Your task to perform on an android device: toggle pop-ups in chrome Image 0: 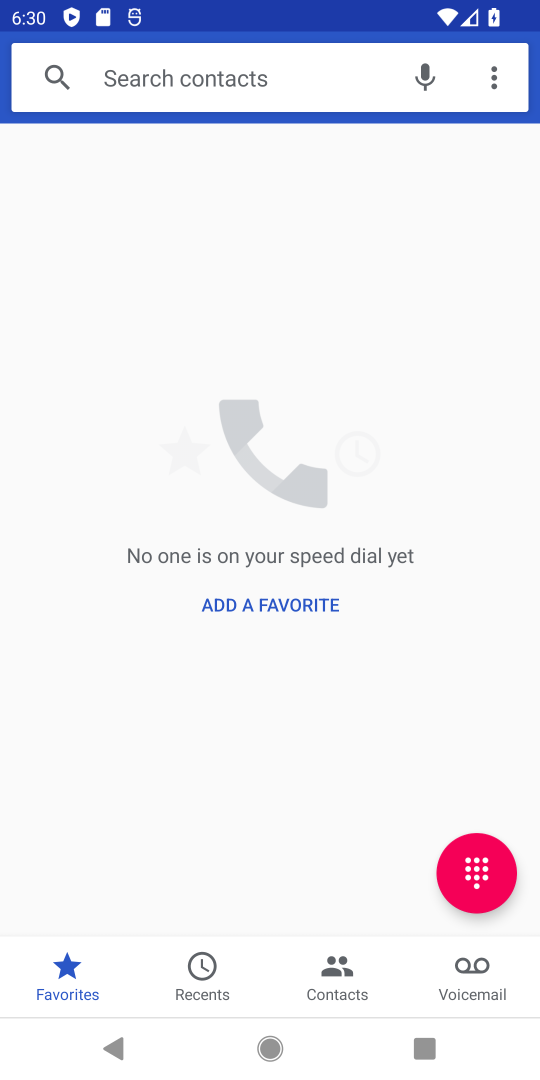
Step 0: press home button
Your task to perform on an android device: toggle pop-ups in chrome Image 1: 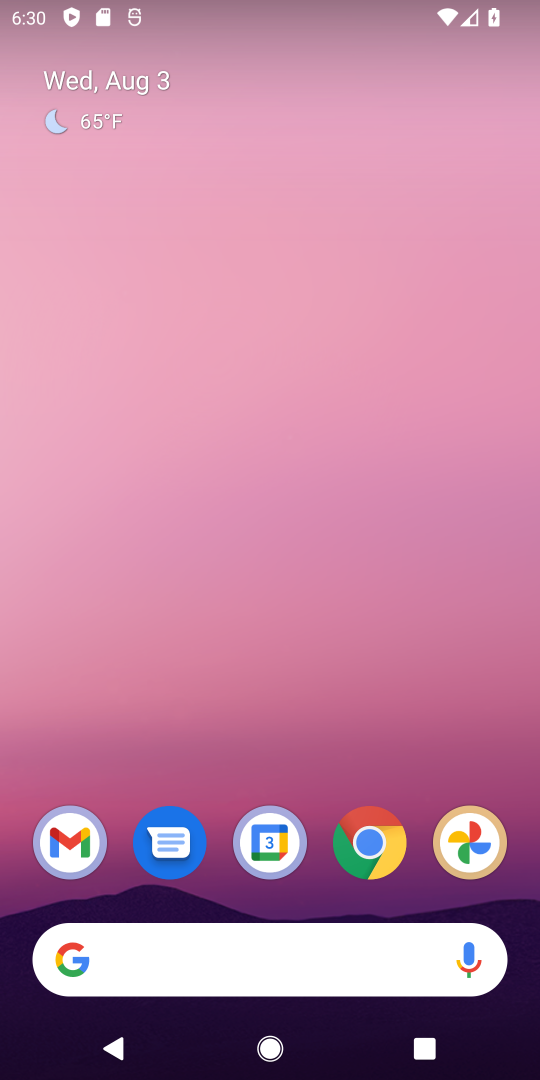
Step 1: click (382, 856)
Your task to perform on an android device: toggle pop-ups in chrome Image 2: 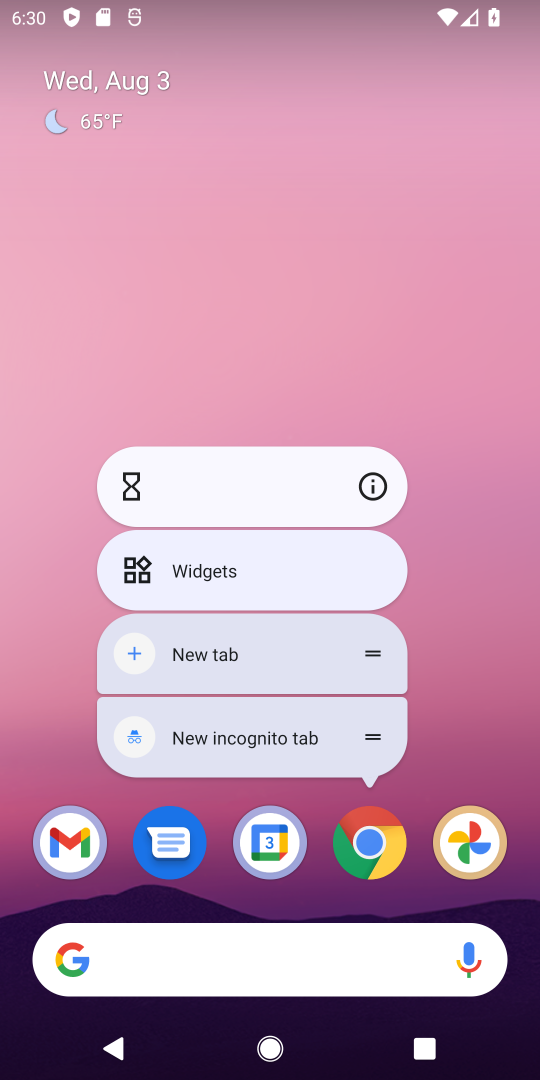
Step 2: click (382, 856)
Your task to perform on an android device: toggle pop-ups in chrome Image 3: 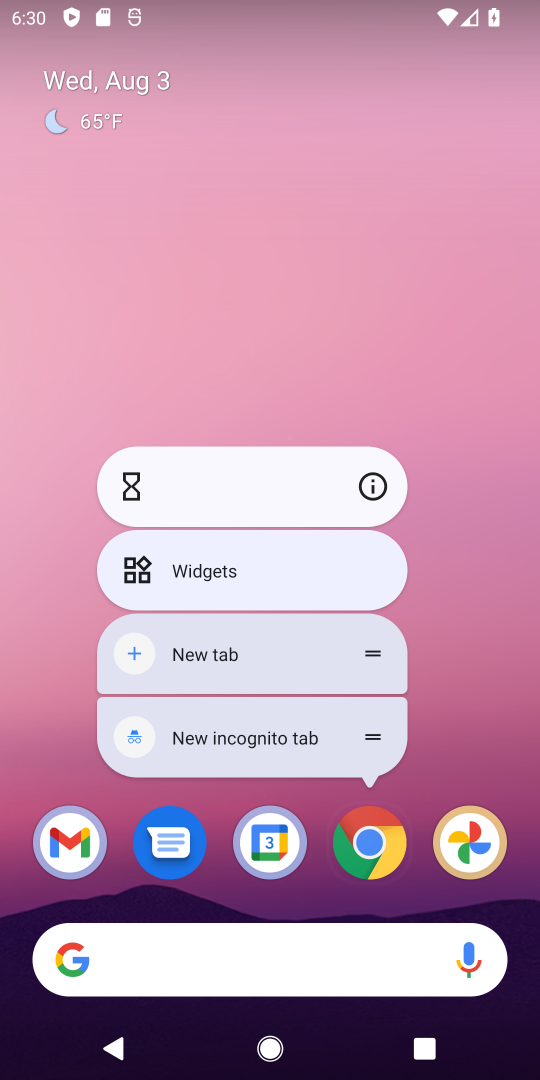
Step 3: click (382, 856)
Your task to perform on an android device: toggle pop-ups in chrome Image 4: 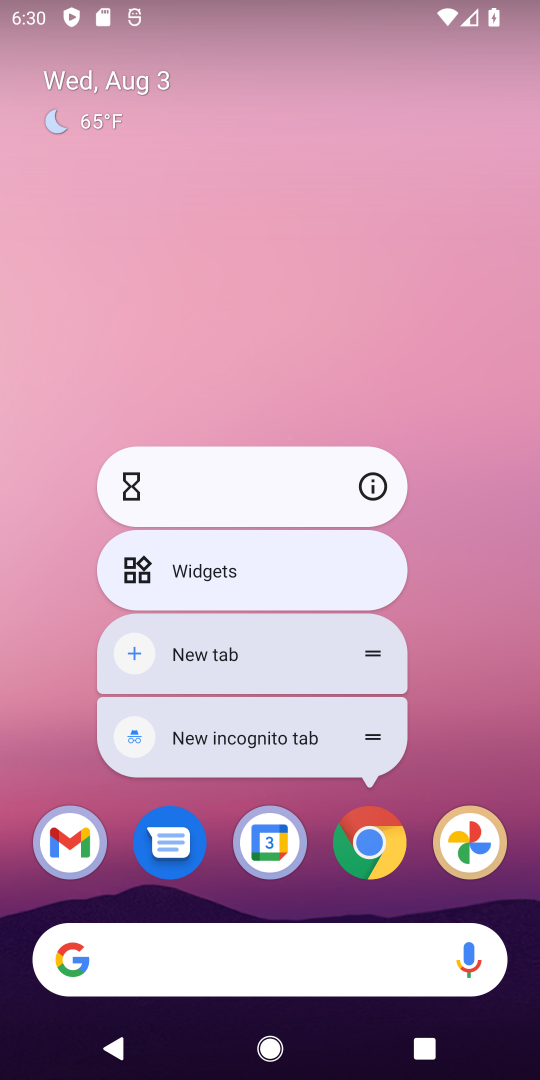
Step 4: click (382, 856)
Your task to perform on an android device: toggle pop-ups in chrome Image 5: 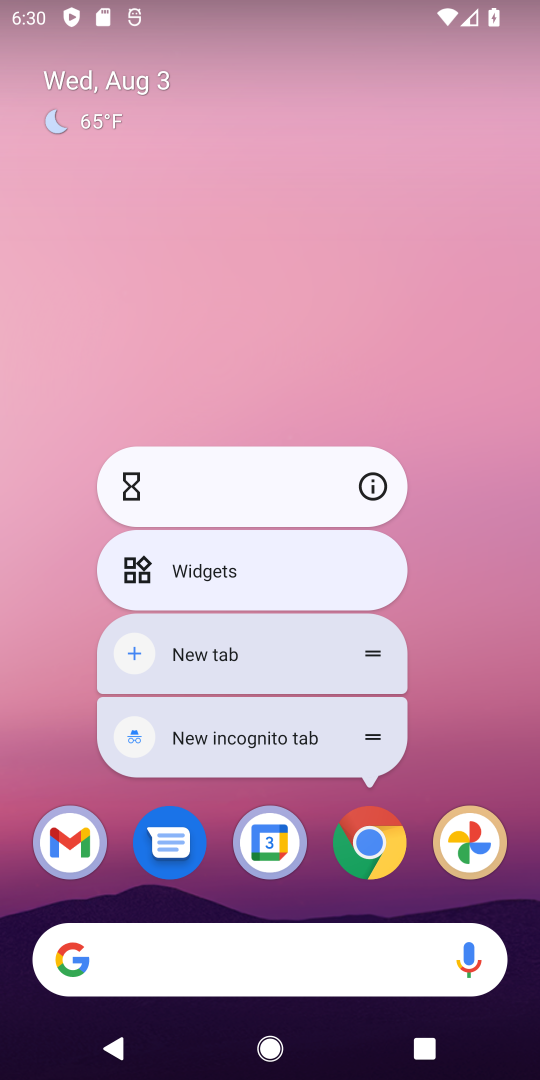
Step 5: click (382, 856)
Your task to perform on an android device: toggle pop-ups in chrome Image 6: 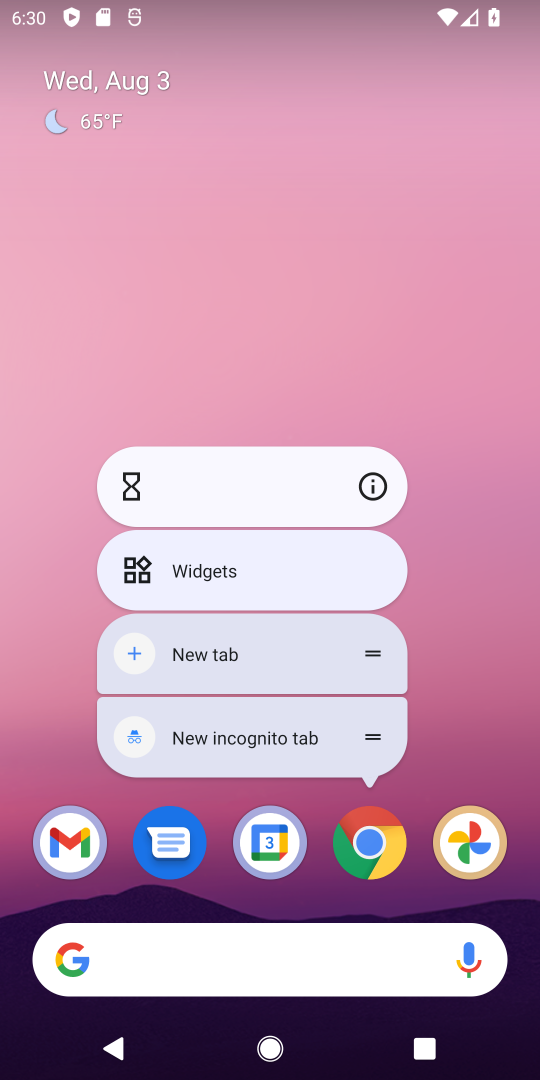
Step 6: click (357, 861)
Your task to perform on an android device: toggle pop-ups in chrome Image 7: 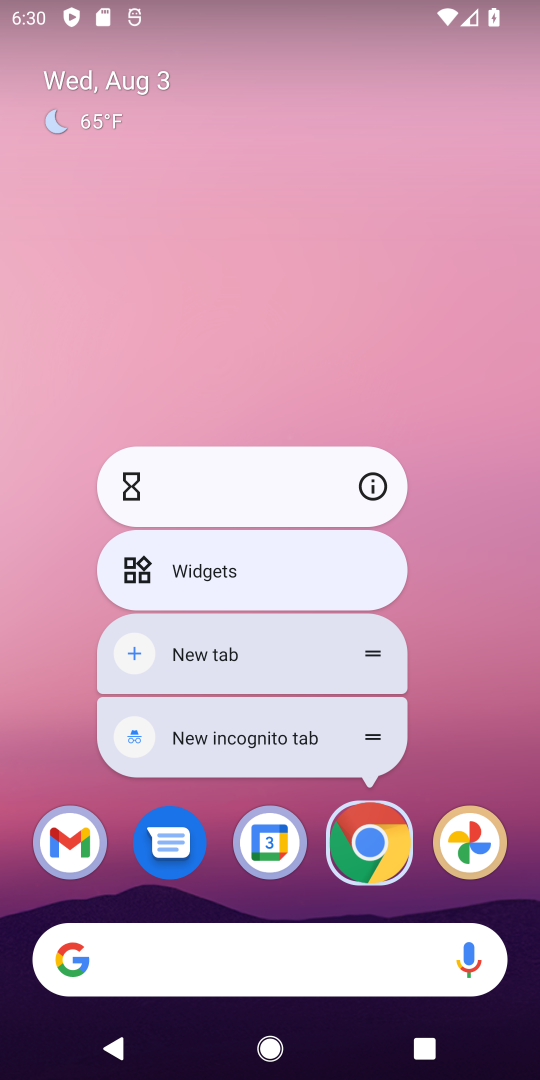
Step 7: click (357, 861)
Your task to perform on an android device: toggle pop-ups in chrome Image 8: 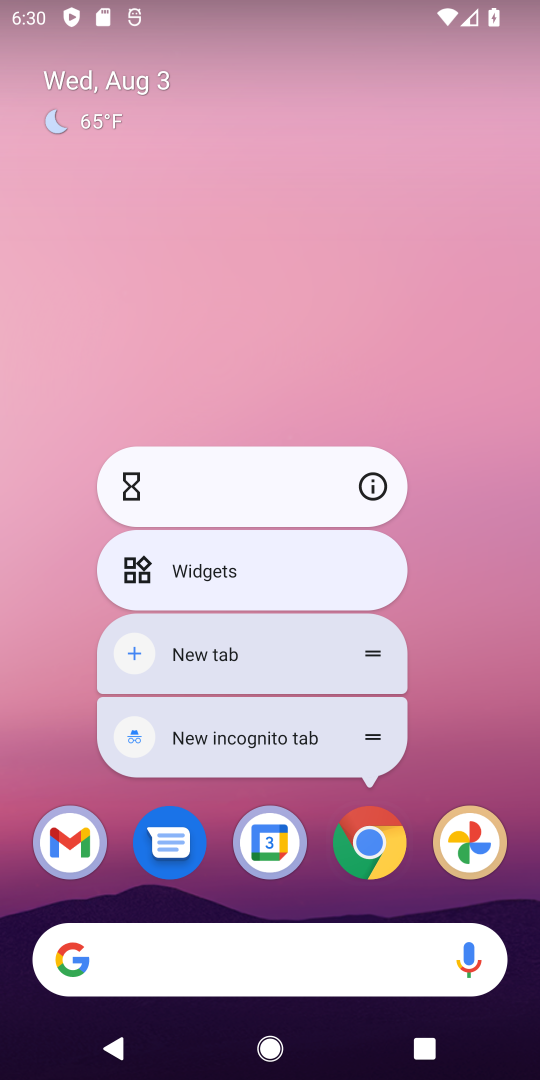
Step 8: click (357, 861)
Your task to perform on an android device: toggle pop-ups in chrome Image 9: 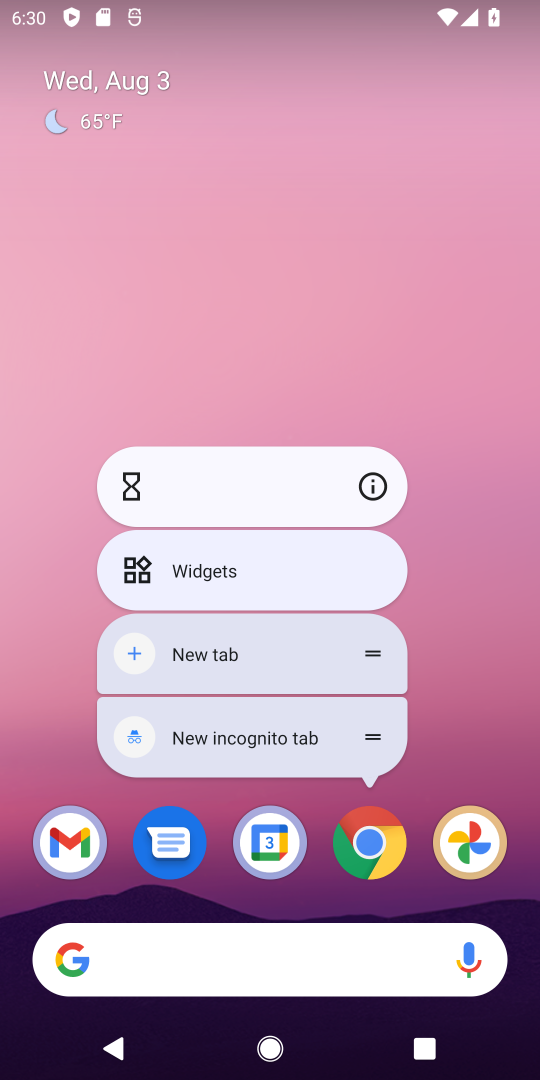
Step 9: click (378, 847)
Your task to perform on an android device: toggle pop-ups in chrome Image 10: 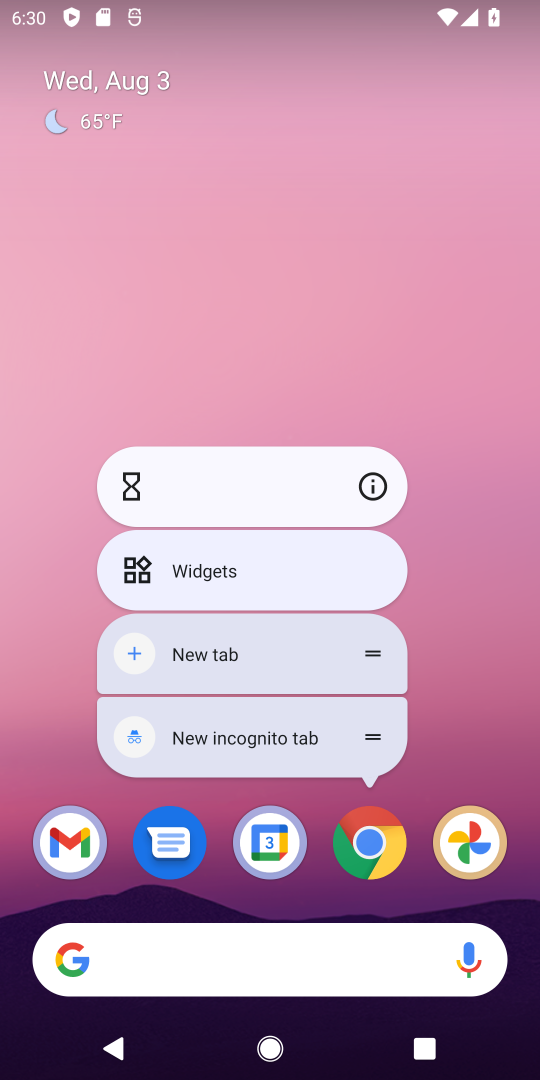
Step 10: click (354, 844)
Your task to perform on an android device: toggle pop-ups in chrome Image 11: 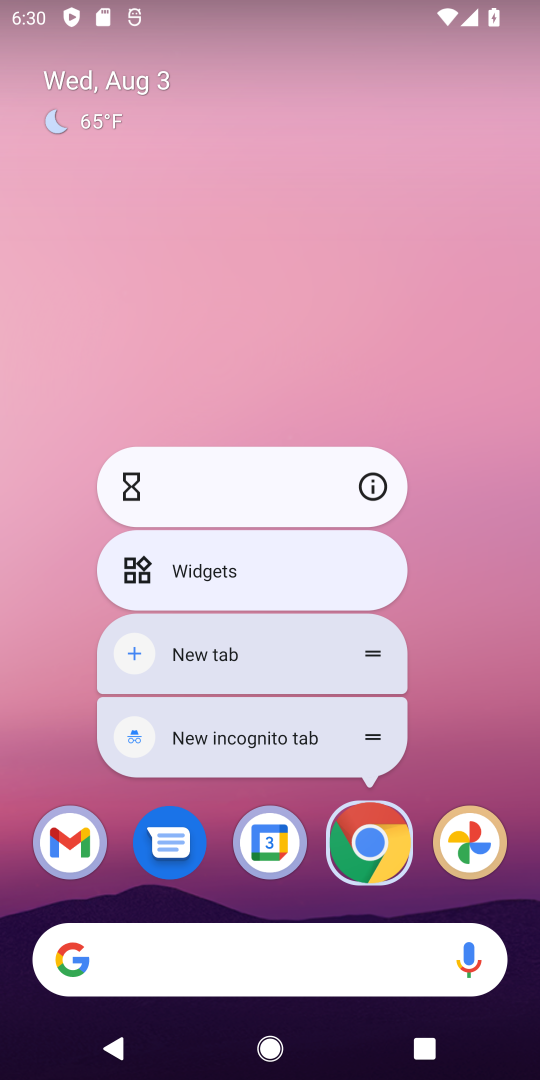
Step 11: click (354, 844)
Your task to perform on an android device: toggle pop-ups in chrome Image 12: 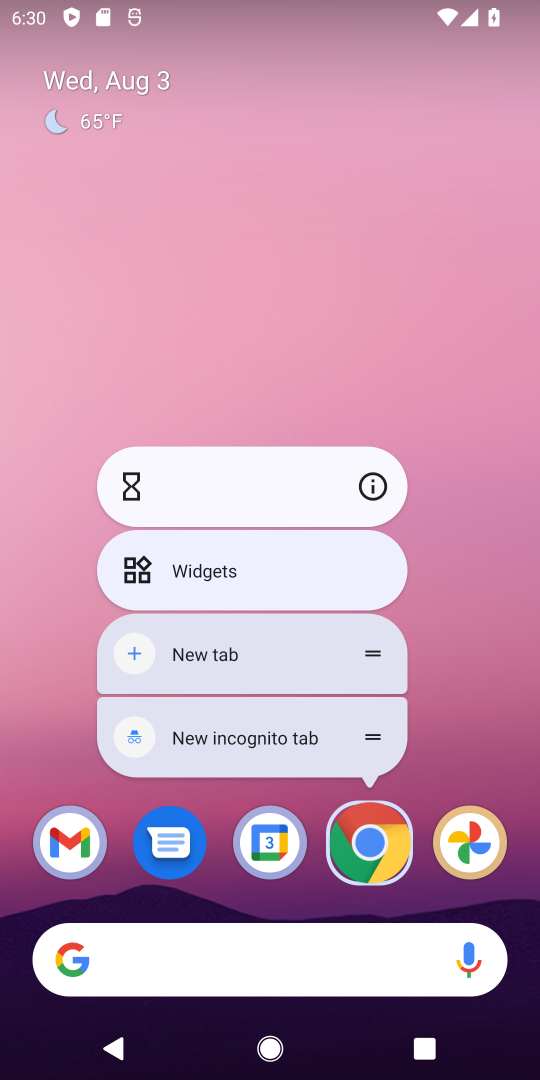
Step 12: click (354, 844)
Your task to perform on an android device: toggle pop-ups in chrome Image 13: 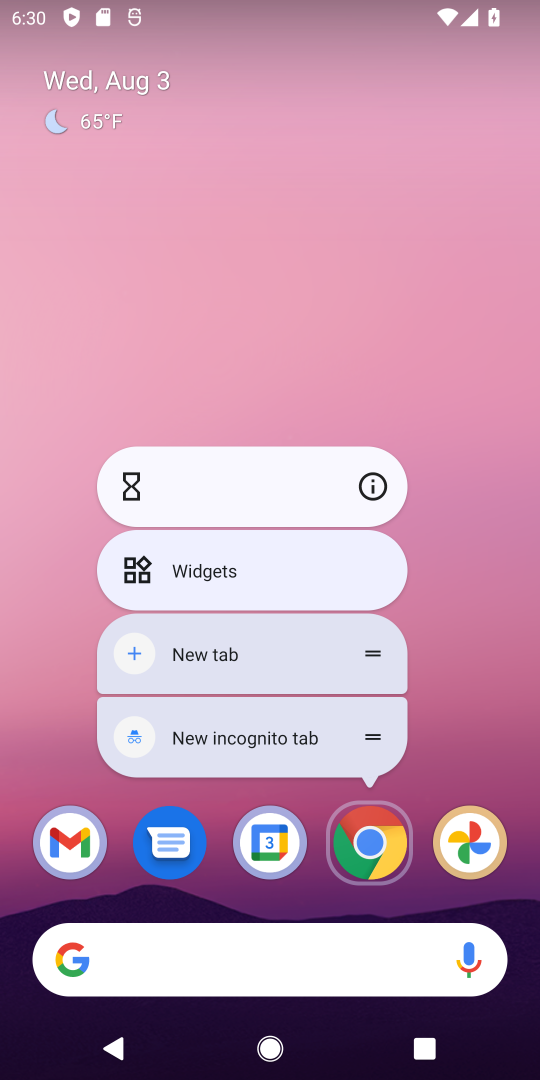
Step 13: click (354, 844)
Your task to perform on an android device: toggle pop-ups in chrome Image 14: 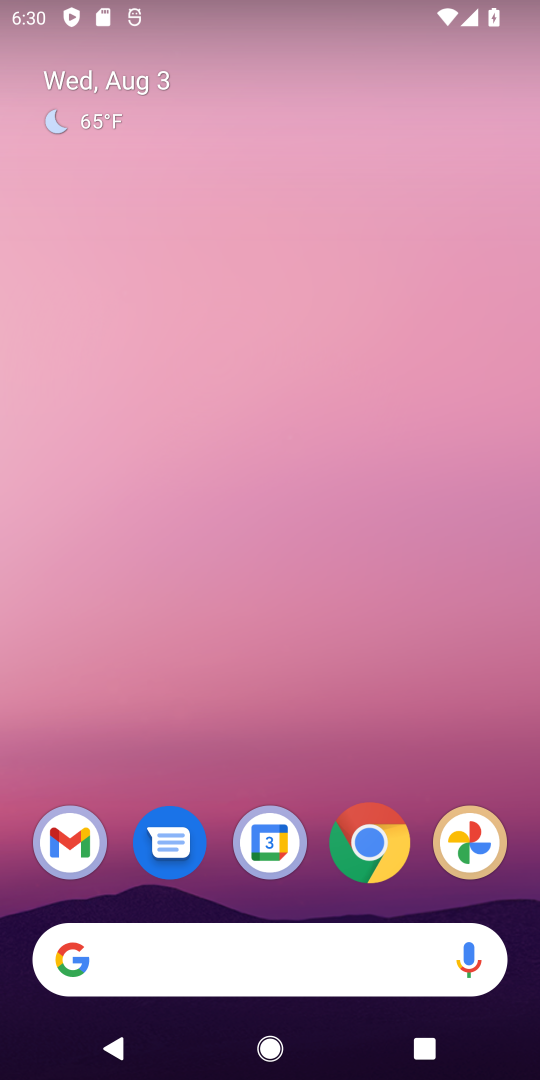
Step 14: click (354, 844)
Your task to perform on an android device: toggle pop-ups in chrome Image 15: 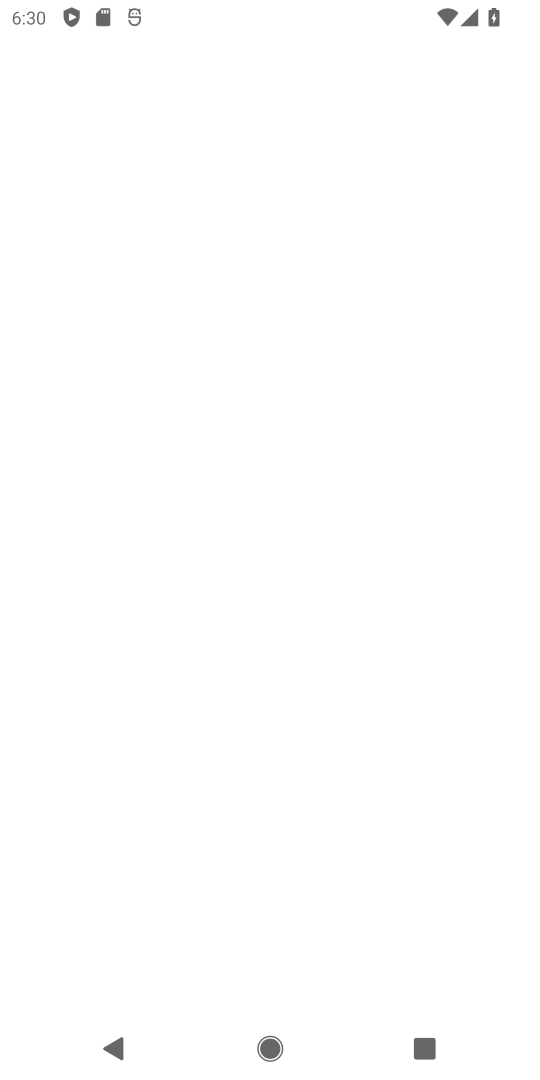
Step 15: click (354, 844)
Your task to perform on an android device: toggle pop-ups in chrome Image 16: 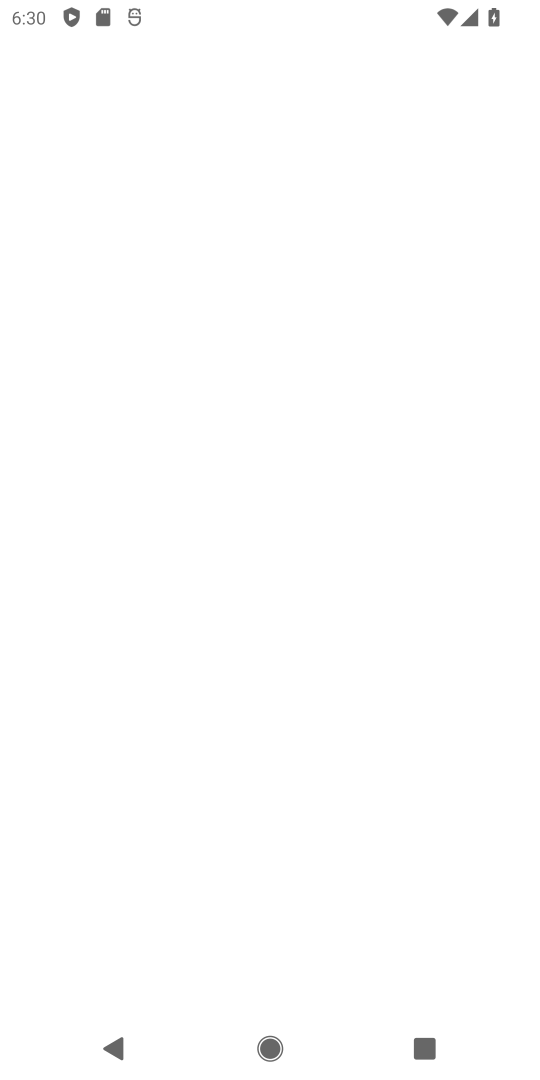
Step 16: click (354, 844)
Your task to perform on an android device: toggle pop-ups in chrome Image 17: 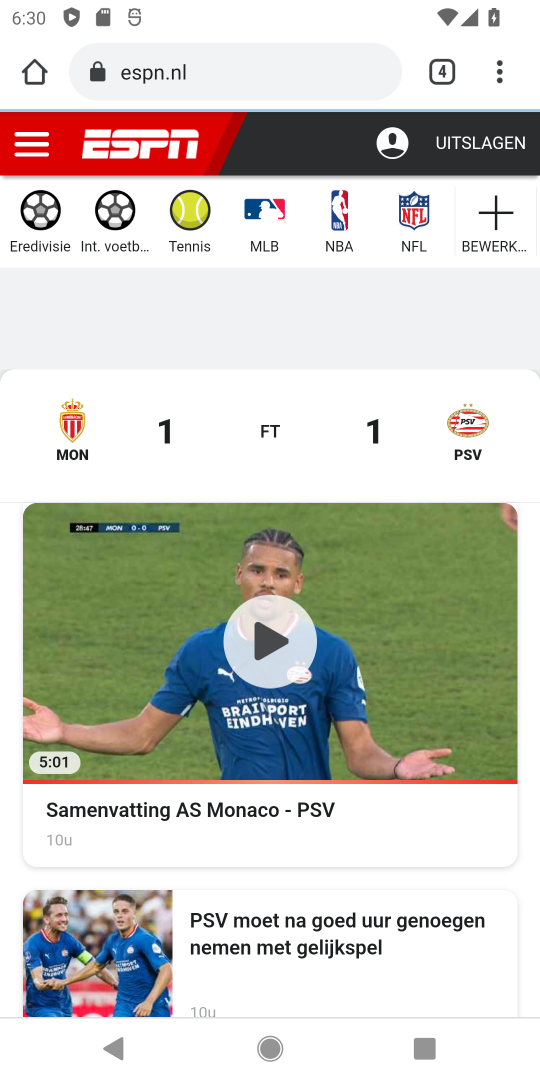
Step 17: click (503, 71)
Your task to perform on an android device: toggle pop-ups in chrome Image 18: 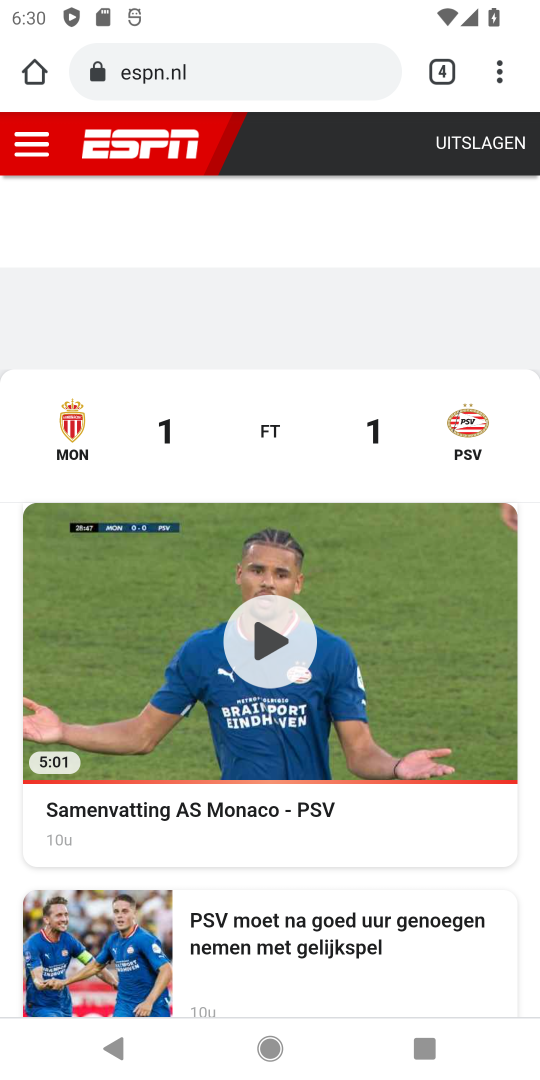
Step 18: click (516, 71)
Your task to perform on an android device: toggle pop-ups in chrome Image 19: 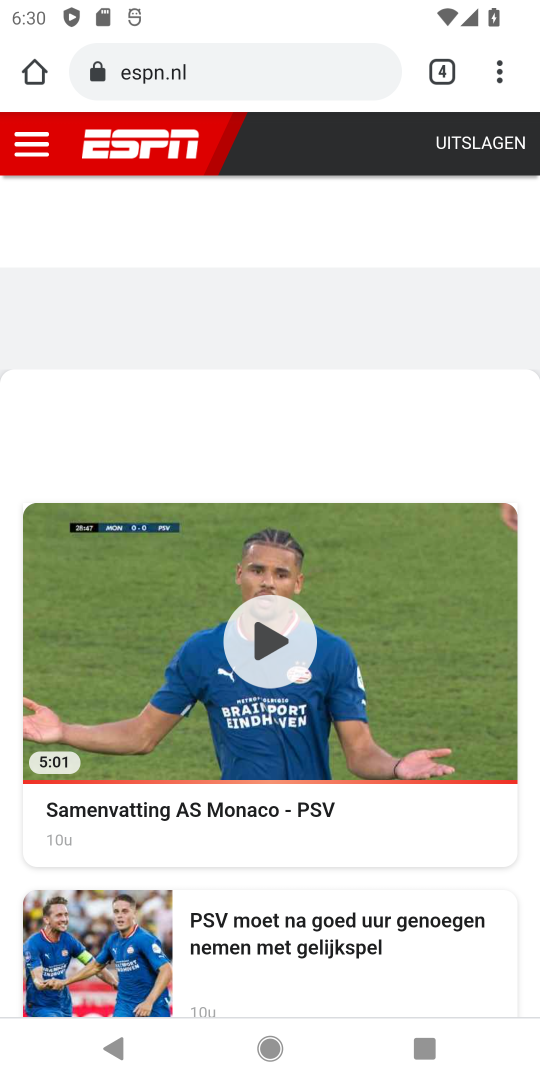
Step 19: click (509, 80)
Your task to perform on an android device: toggle pop-ups in chrome Image 20: 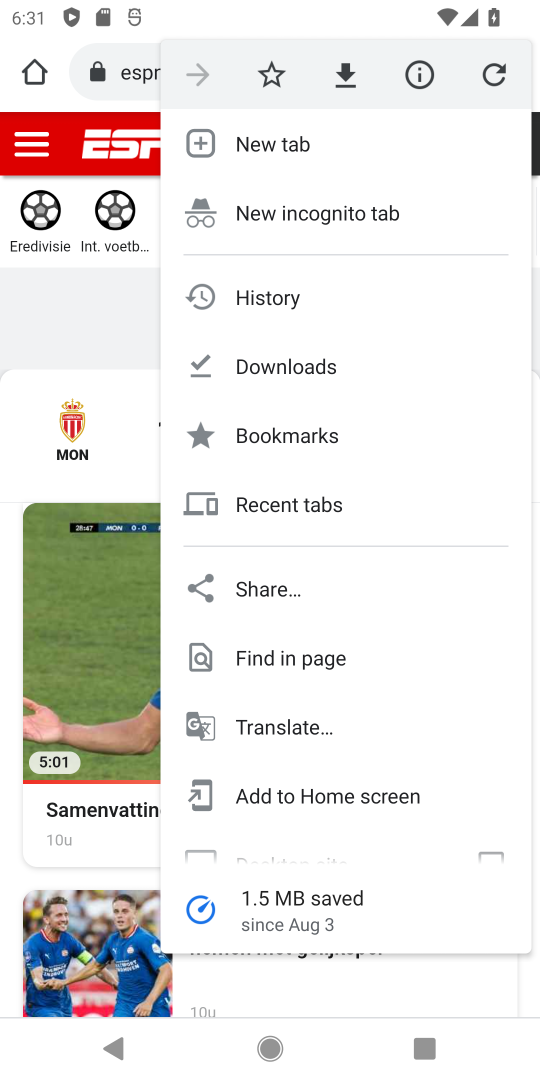
Step 20: drag from (376, 783) to (408, 85)
Your task to perform on an android device: toggle pop-ups in chrome Image 21: 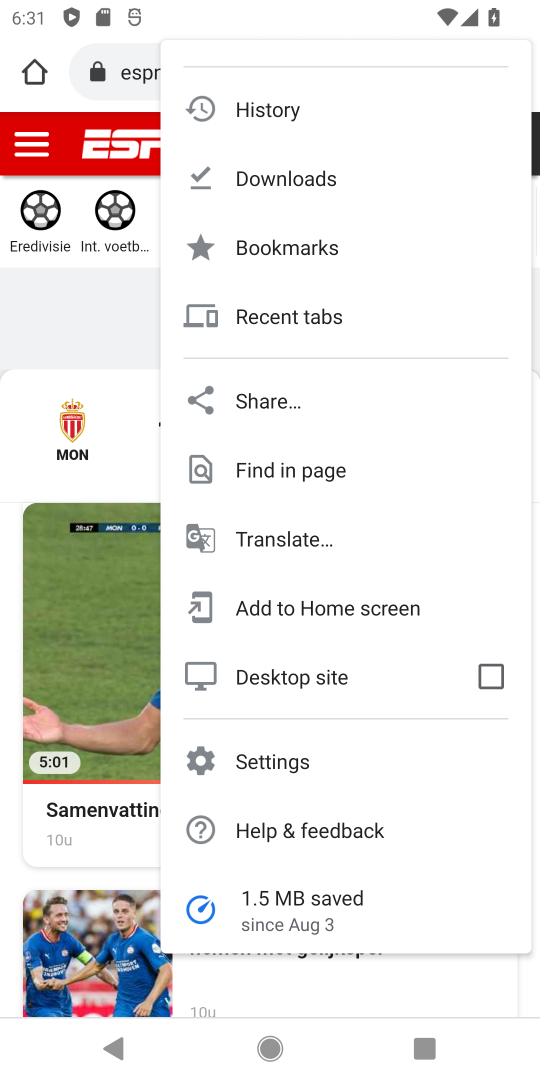
Step 21: click (296, 757)
Your task to perform on an android device: toggle pop-ups in chrome Image 22: 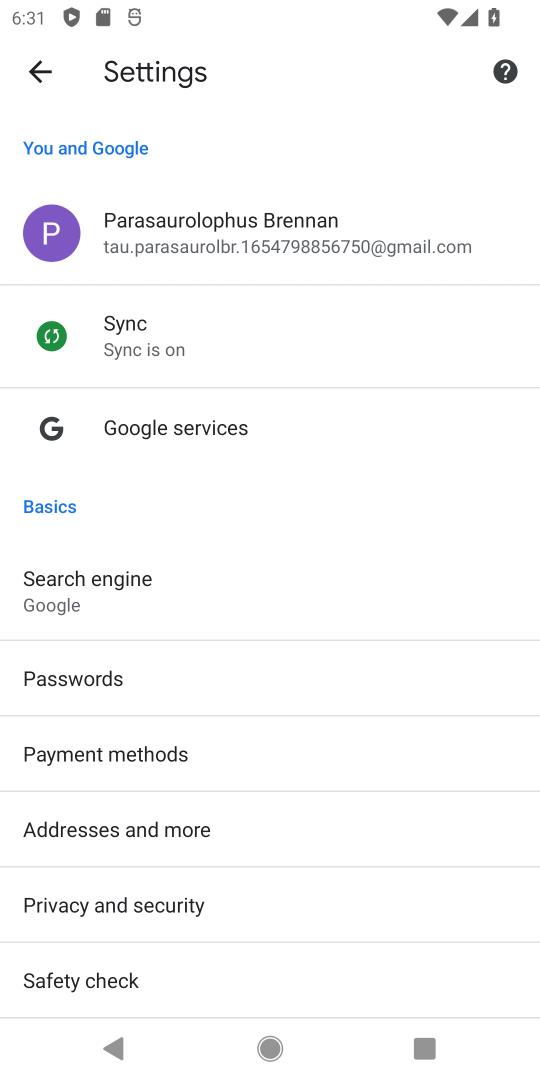
Step 22: drag from (331, 905) to (321, 99)
Your task to perform on an android device: toggle pop-ups in chrome Image 23: 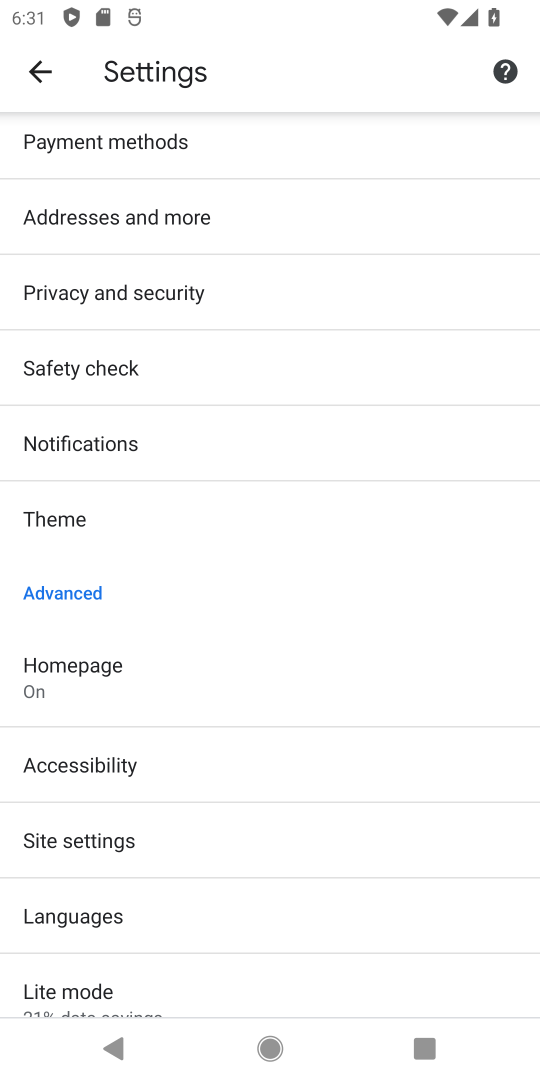
Step 23: click (157, 864)
Your task to perform on an android device: toggle pop-ups in chrome Image 24: 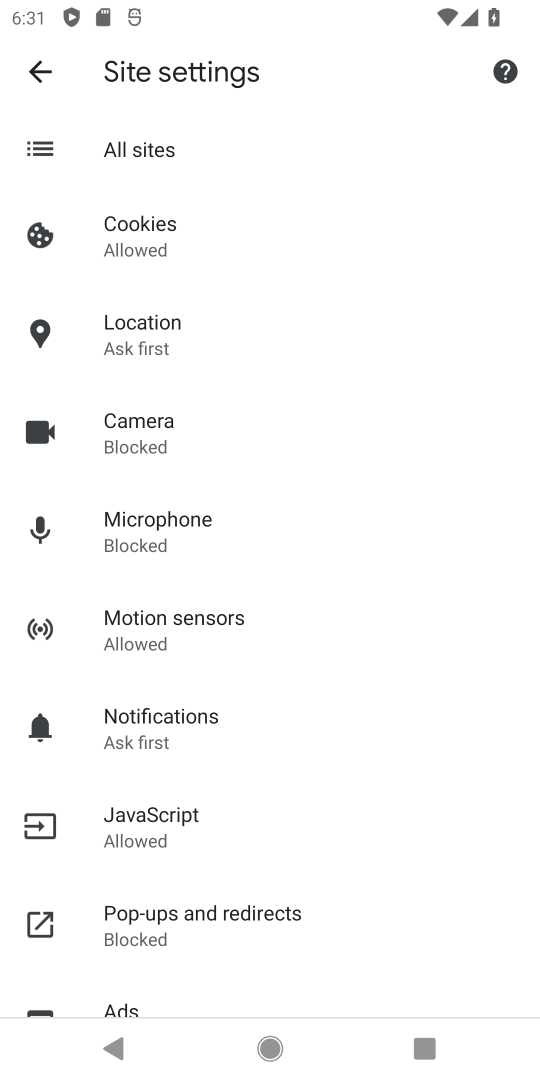
Step 24: drag from (301, 769) to (228, 198)
Your task to perform on an android device: toggle pop-ups in chrome Image 25: 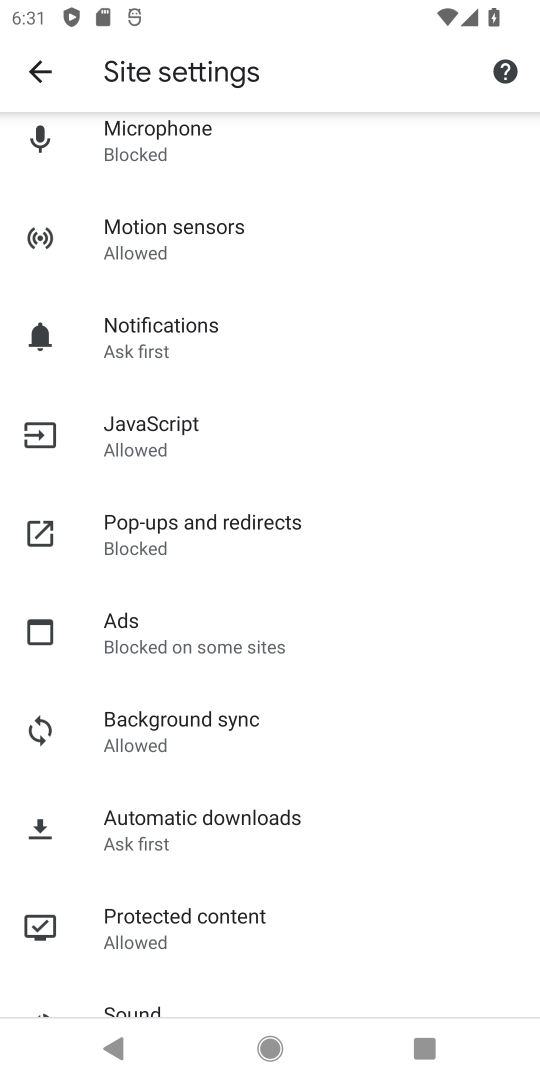
Step 25: click (233, 546)
Your task to perform on an android device: toggle pop-ups in chrome Image 26: 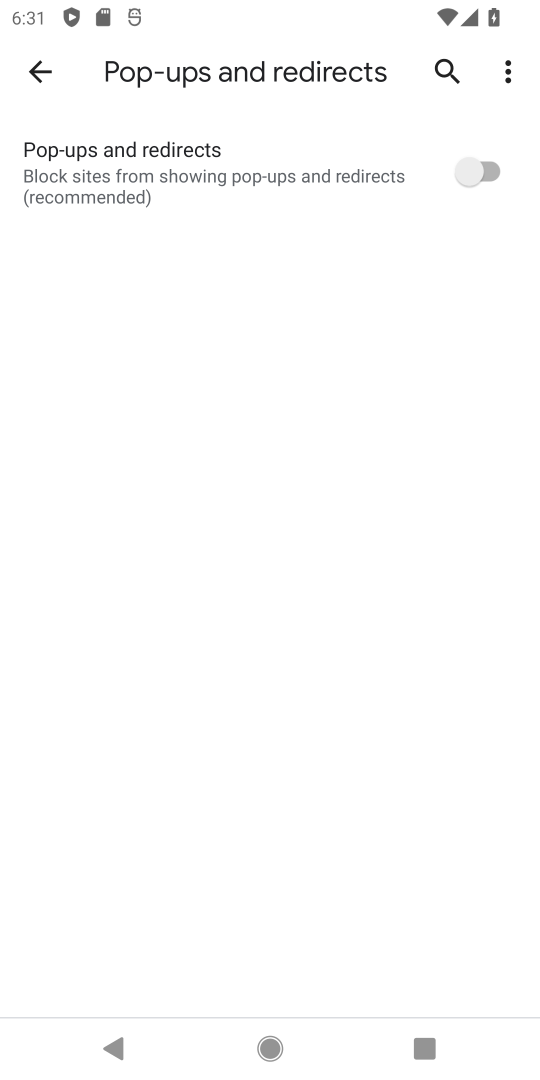
Step 26: click (478, 167)
Your task to perform on an android device: toggle pop-ups in chrome Image 27: 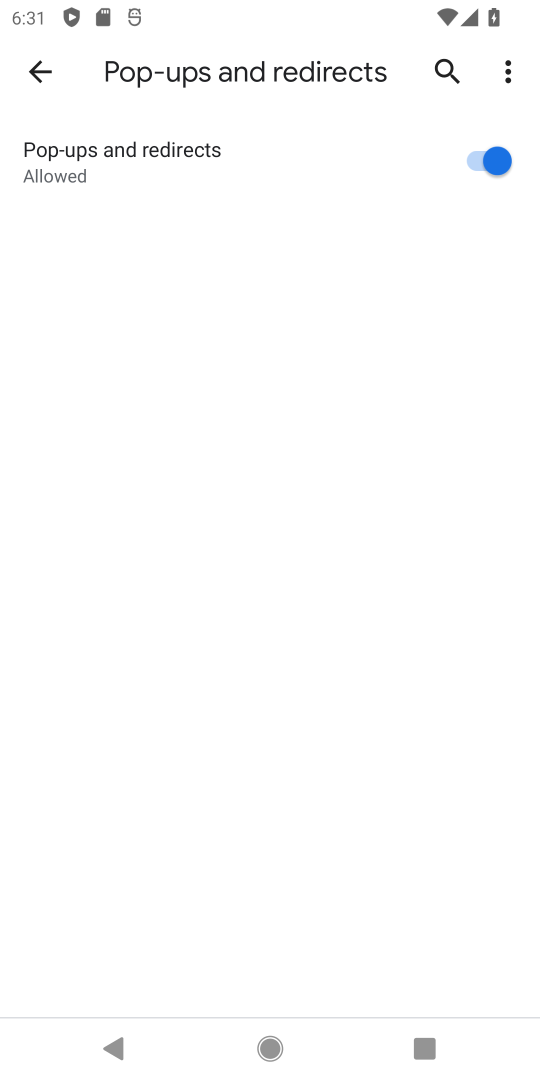
Step 27: task complete